Your task to perform on an android device: change the clock style Image 0: 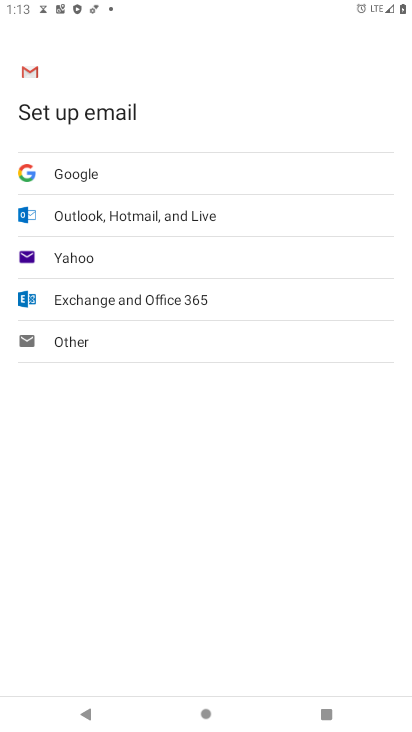
Step 0: press home button
Your task to perform on an android device: change the clock style Image 1: 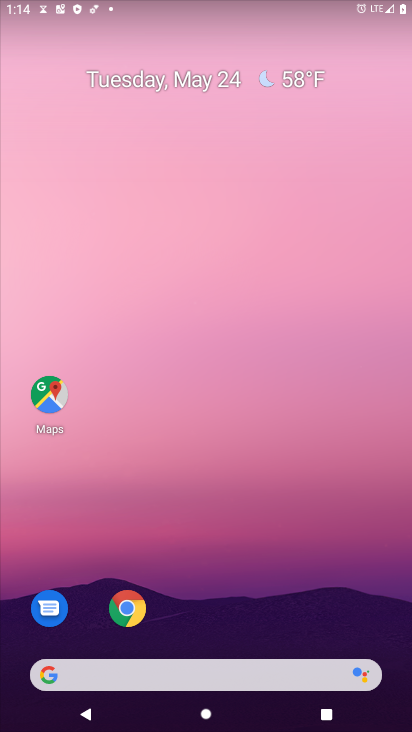
Step 1: drag from (253, 707) to (223, 164)
Your task to perform on an android device: change the clock style Image 2: 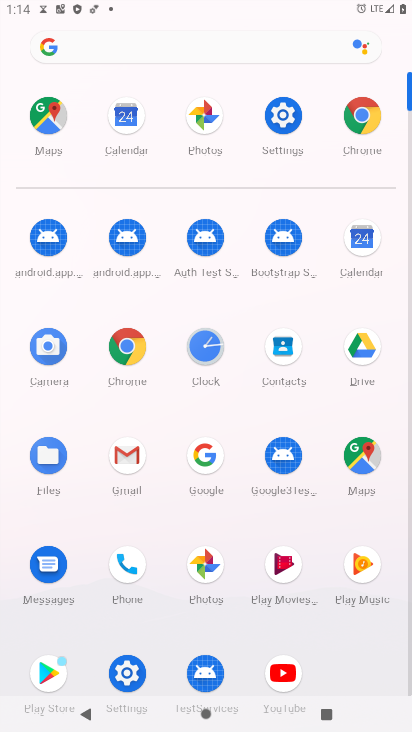
Step 2: click (208, 351)
Your task to perform on an android device: change the clock style Image 3: 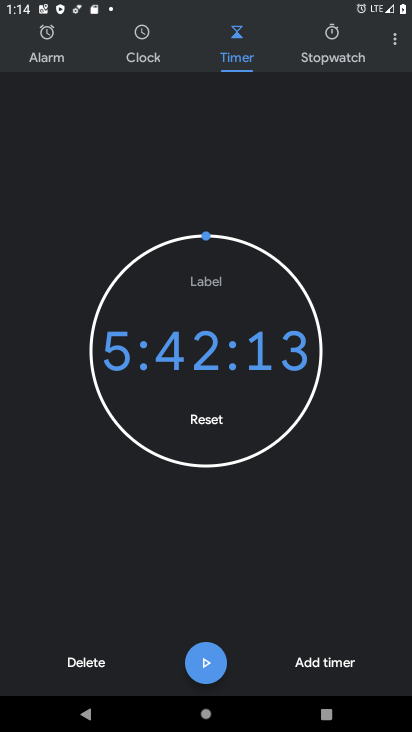
Step 3: click (392, 44)
Your task to perform on an android device: change the clock style Image 4: 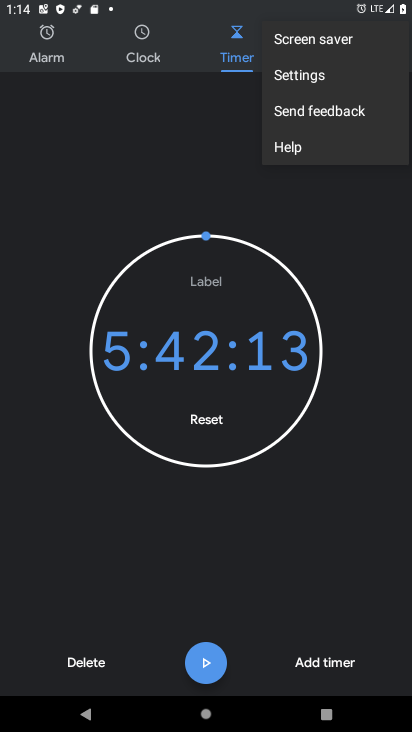
Step 4: click (329, 74)
Your task to perform on an android device: change the clock style Image 5: 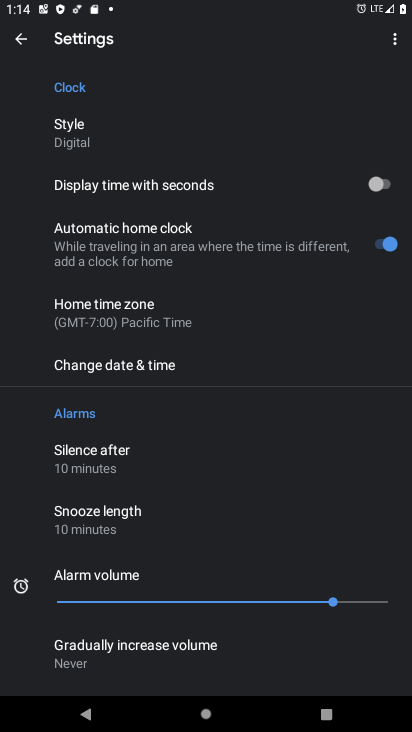
Step 5: click (106, 125)
Your task to perform on an android device: change the clock style Image 6: 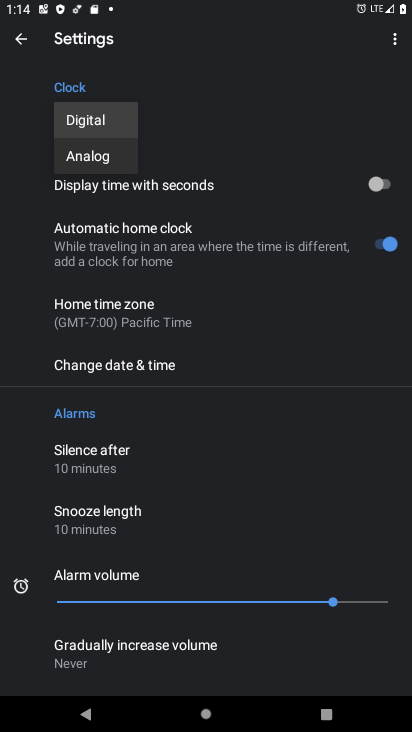
Step 6: click (122, 152)
Your task to perform on an android device: change the clock style Image 7: 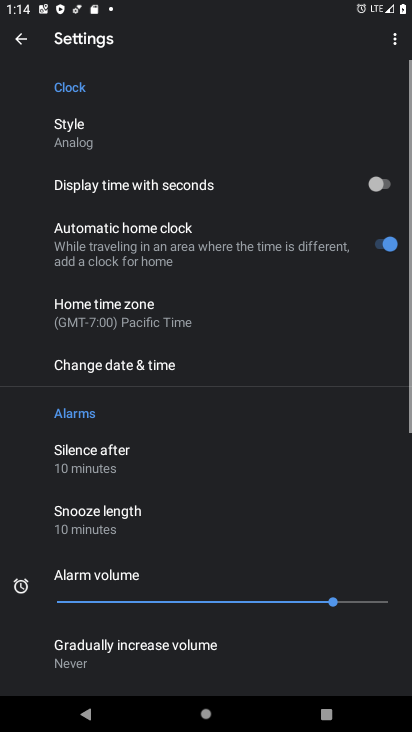
Step 7: task complete